Your task to perform on an android device: open a bookmark in the chrome app Image 0: 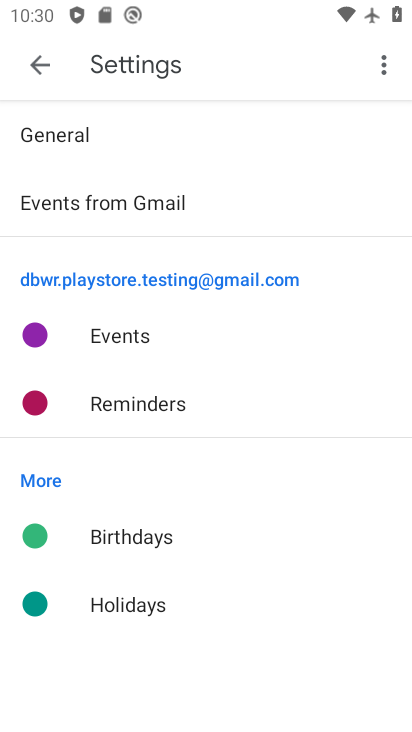
Step 0: press back button
Your task to perform on an android device: open a bookmark in the chrome app Image 1: 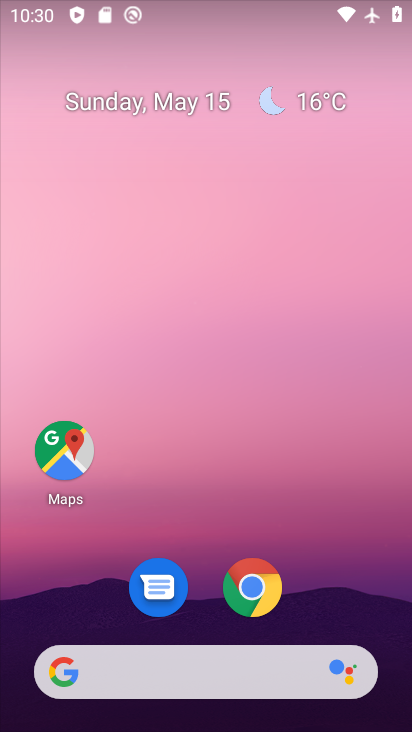
Step 1: drag from (337, 558) to (266, 27)
Your task to perform on an android device: open a bookmark in the chrome app Image 2: 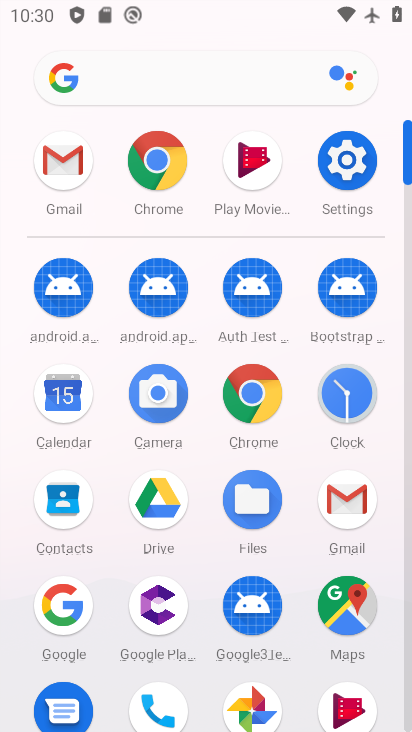
Step 2: click (152, 160)
Your task to perform on an android device: open a bookmark in the chrome app Image 3: 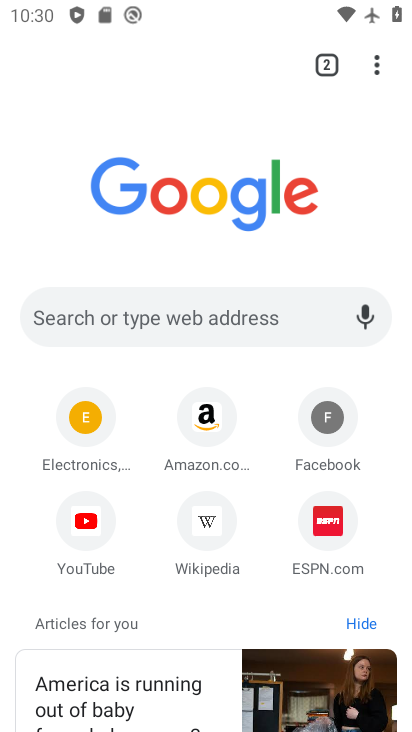
Step 3: drag from (374, 60) to (227, 269)
Your task to perform on an android device: open a bookmark in the chrome app Image 4: 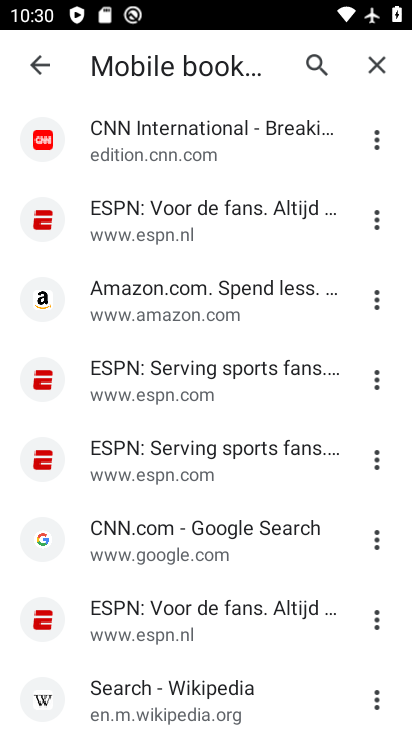
Step 4: drag from (371, 61) to (166, 376)
Your task to perform on an android device: open a bookmark in the chrome app Image 5: 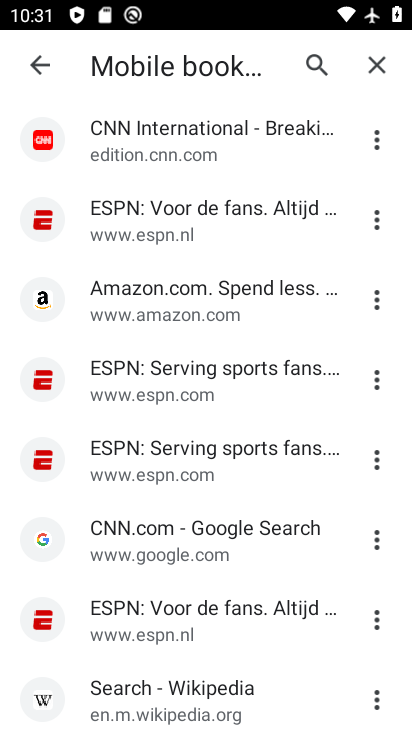
Step 5: click (192, 372)
Your task to perform on an android device: open a bookmark in the chrome app Image 6: 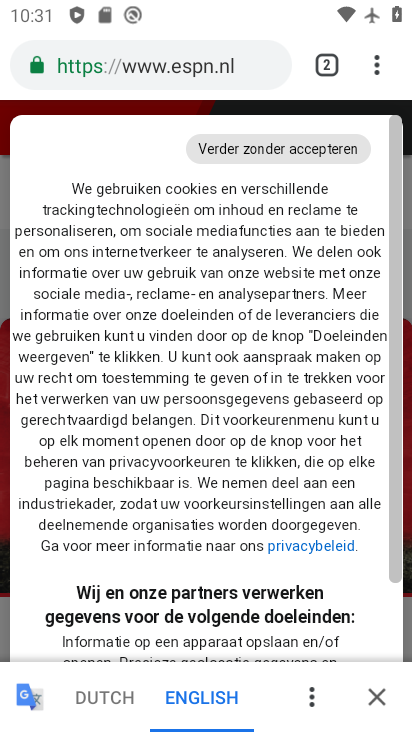
Step 6: drag from (207, 538) to (204, 168)
Your task to perform on an android device: open a bookmark in the chrome app Image 7: 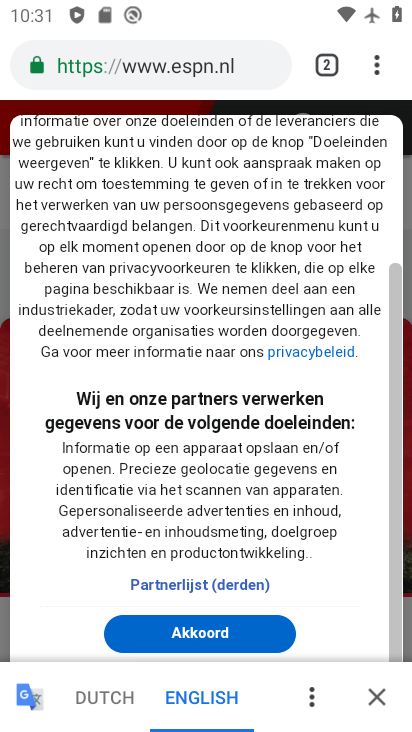
Step 7: click (176, 636)
Your task to perform on an android device: open a bookmark in the chrome app Image 8: 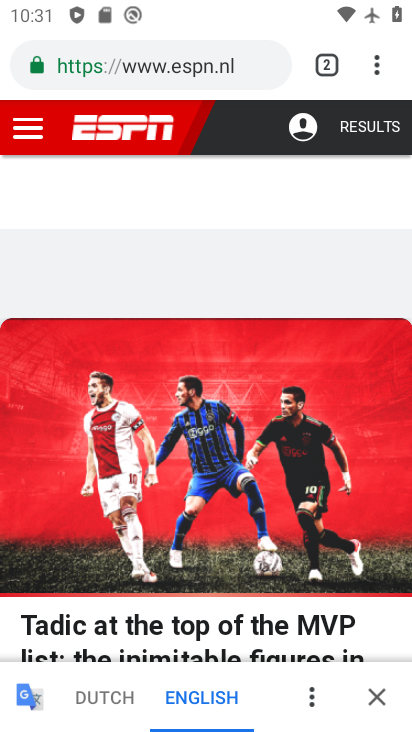
Step 8: task complete